Your task to perform on an android device: open a bookmark in the chrome app Image 0: 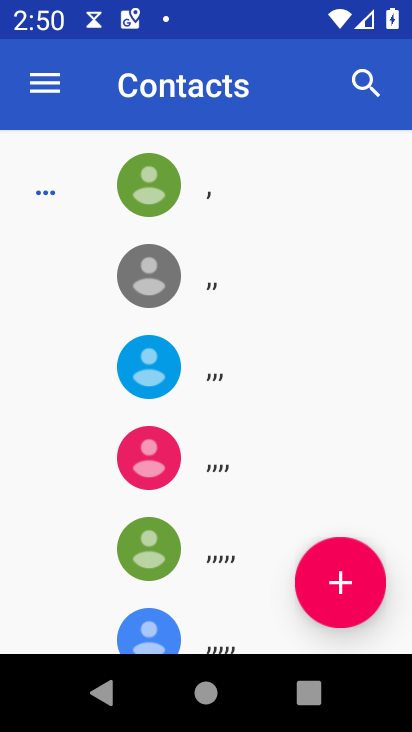
Step 0: press home button
Your task to perform on an android device: open a bookmark in the chrome app Image 1: 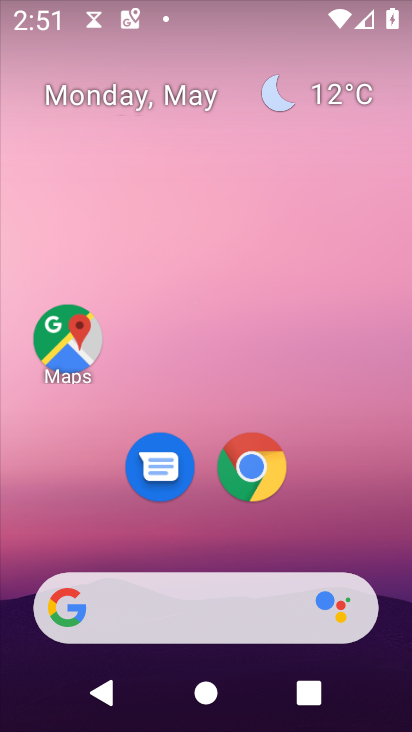
Step 1: drag from (399, 565) to (263, 1)
Your task to perform on an android device: open a bookmark in the chrome app Image 2: 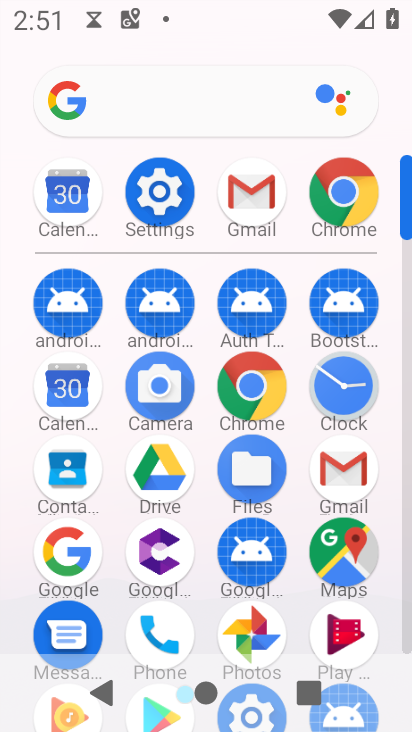
Step 2: click (343, 213)
Your task to perform on an android device: open a bookmark in the chrome app Image 3: 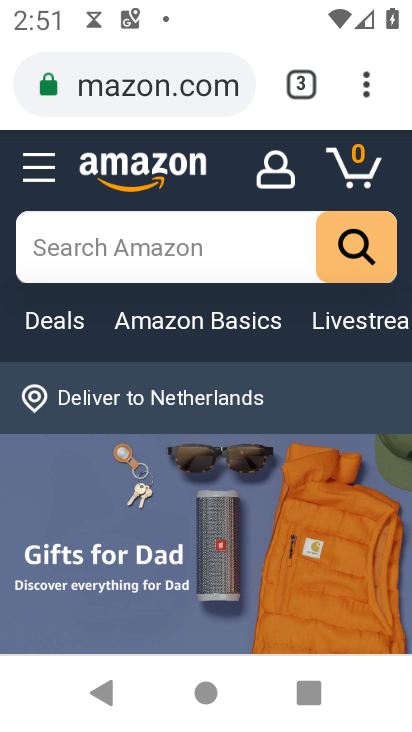
Step 3: click (363, 96)
Your task to perform on an android device: open a bookmark in the chrome app Image 4: 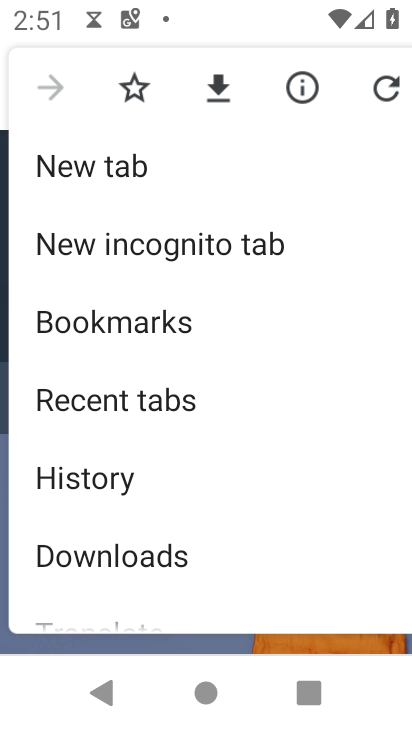
Step 4: click (238, 326)
Your task to perform on an android device: open a bookmark in the chrome app Image 5: 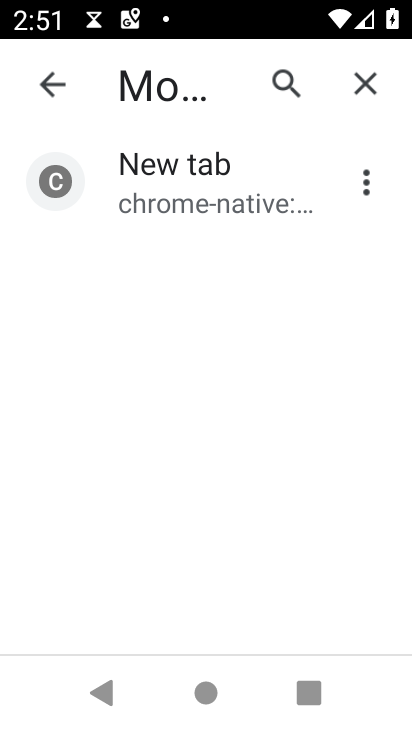
Step 5: click (262, 205)
Your task to perform on an android device: open a bookmark in the chrome app Image 6: 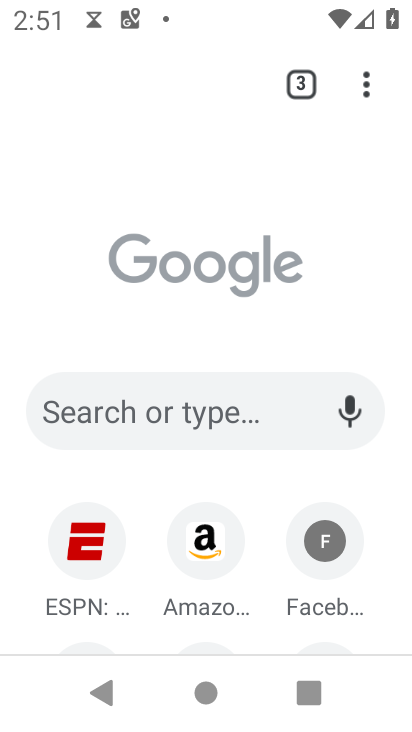
Step 6: task complete